Your task to perform on an android device: Open the calendar app, open the side menu, and click the "Day" option Image 0: 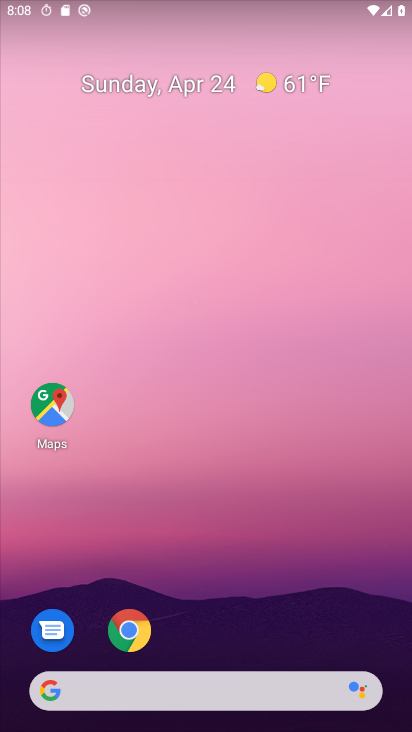
Step 0: drag from (367, 623) to (355, 109)
Your task to perform on an android device: Open the calendar app, open the side menu, and click the "Day" option Image 1: 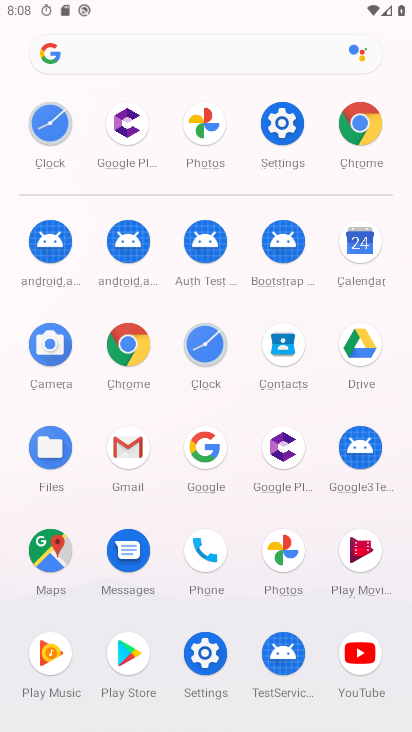
Step 1: click (354, 241)
Your task to perform on an android device: Open the calendar app, open the side menu, and click the "Day" option Image 2: 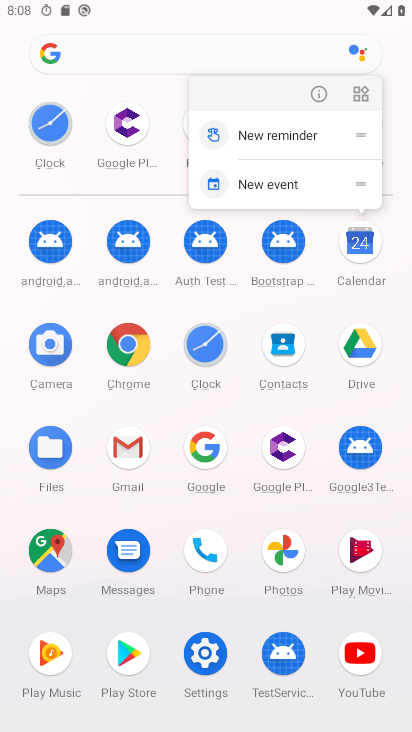
Step 2: click (374, 234)
Your task to perform on an android device: Open the calendar app, open the side menu, and click the "Day" option Image 3: 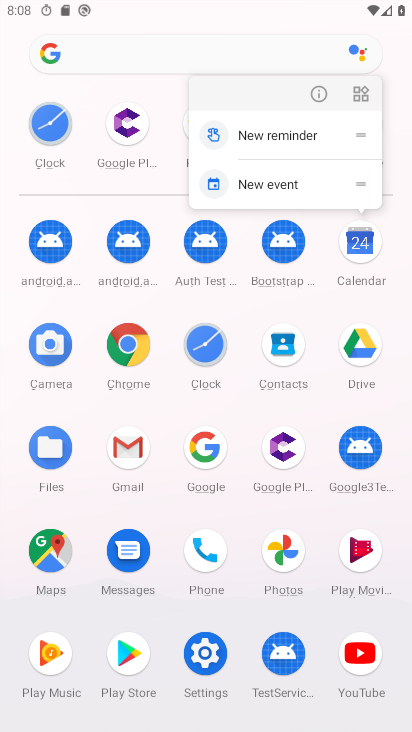
Step 3: click (368, 241)
Your task to perform on an android device: Open the calendar app, open the side menu, and click the "Day" option Image 4: 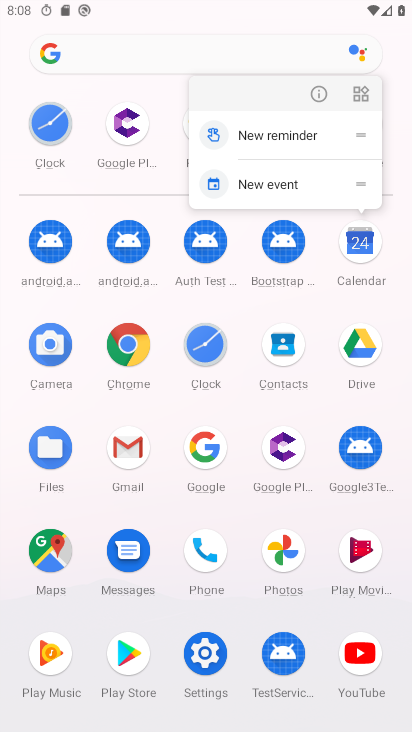
Step 4: click (356, 240)
Your task to perform on an android device: Open the calendar app, open the side menu, and click the "Day" option Image 5: 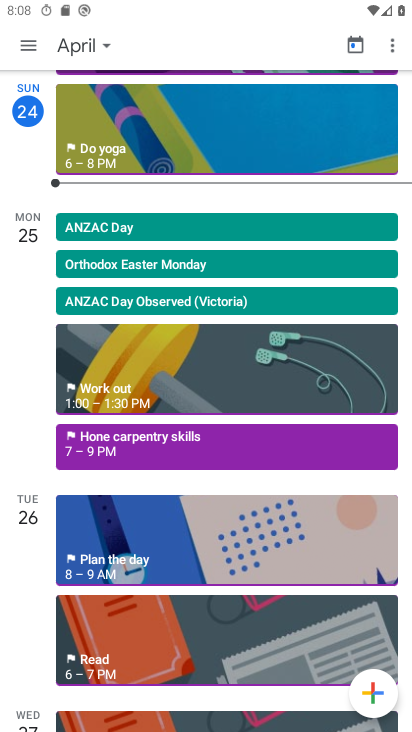
Step 5: click (26, 47)
Your task to perform on an android device: Open the calendar app, open the side menu, and click the "Day" option Image 6: 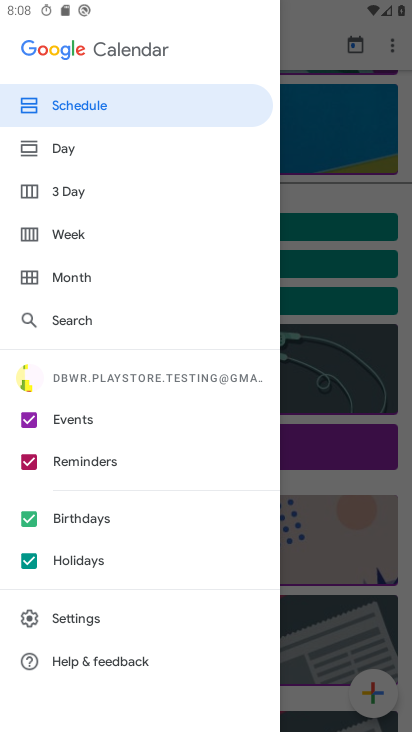
Step 6: click (99, 146)
Your task to perform on an android device: Open the calendar app, open the side menu, and click the "Day" option Image 7: 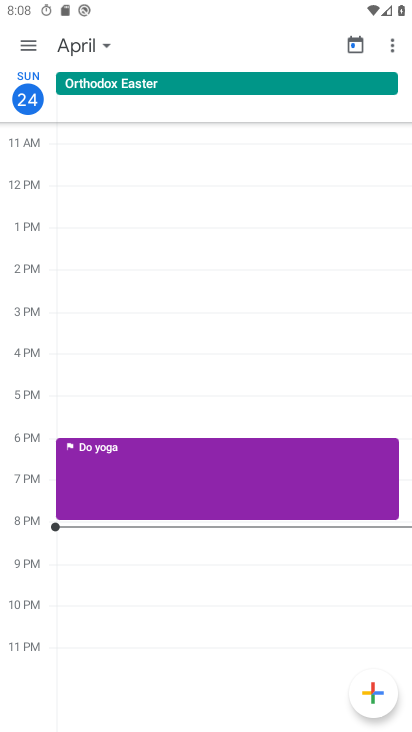
Step 7: task complete